Your task to perform on an android device: Show me recent news Image 0: 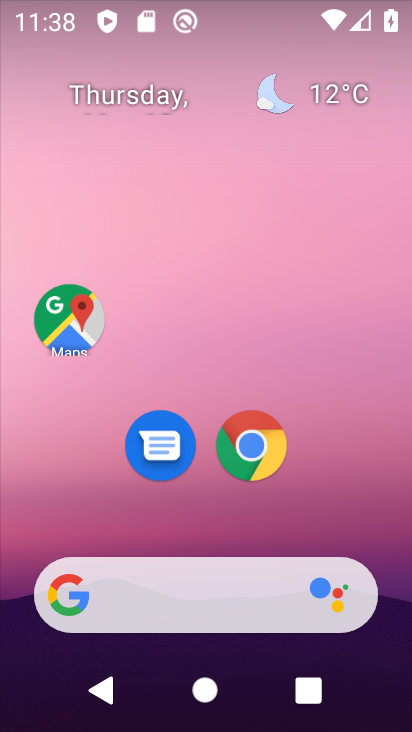
Step 0: drag from (14, 261) to (309, 285)
Your task to perform on an android device: Show me recent news Image 1: 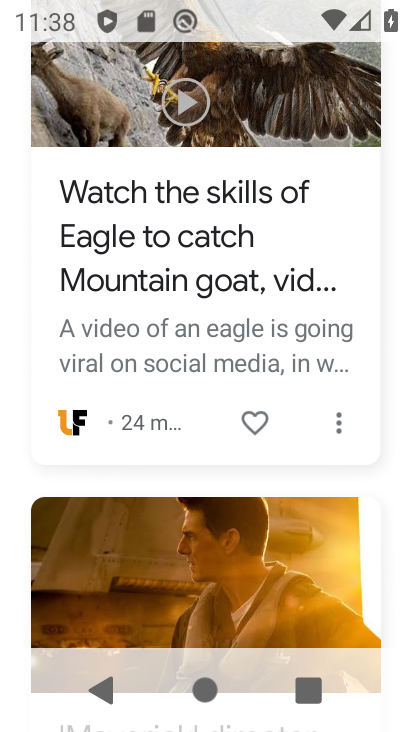
Step 1: task complete